Your task to perform on an android device: What's on my calendar today? Image 0: 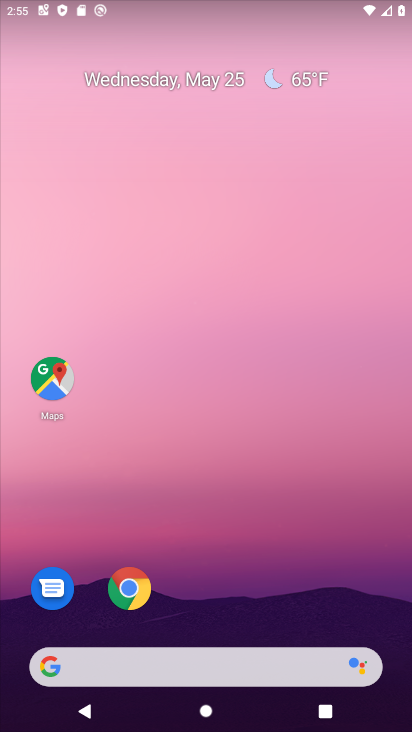
Step 0: drag from (205, 551) to (278, 188)
Your task to perform on an android device: What's on my calendar today? Image 1: 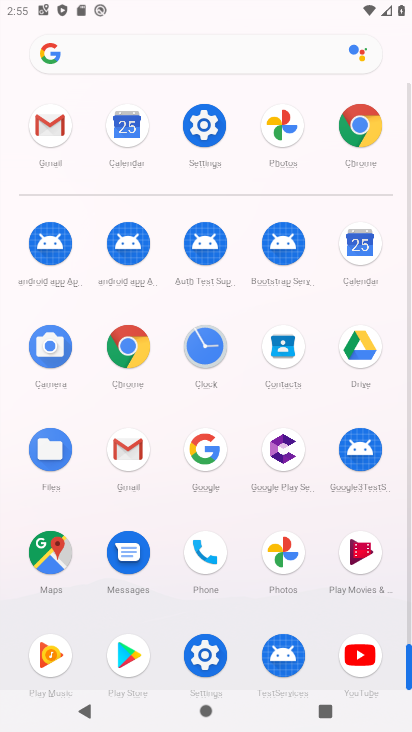
Step 1: click (363, 250)
Your task to perform on an android device: What's on my calendar today? Image 2: 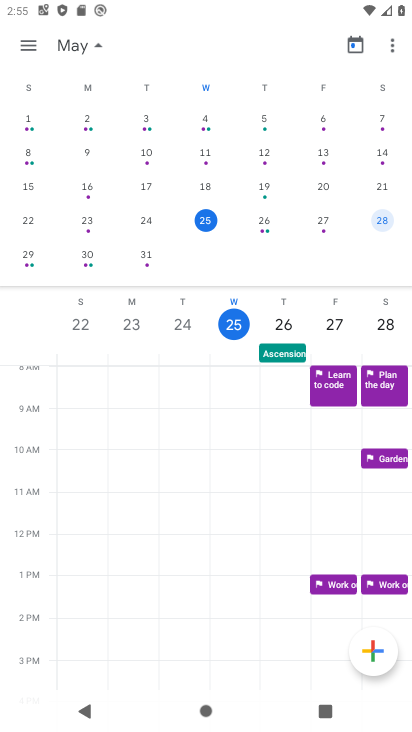
Step 2: task complete